Your task to perform on an android device: Show me the alarms in the clock app Image 0: 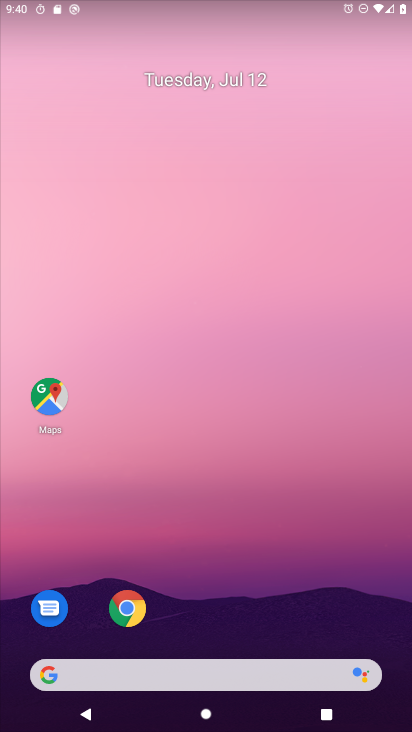
Step 0: drag from (209, 625) to (252, 4)
Your task to perform on an android device: Show me the alarms in the clock app Image 1: 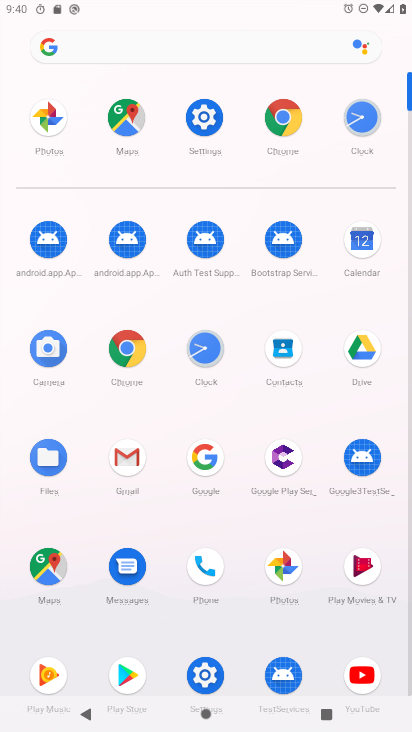
Step 1: drag from (189, 623) to (223, 123)
Your task to perform on an android device: Show me the alarms in the clock app Image 2: 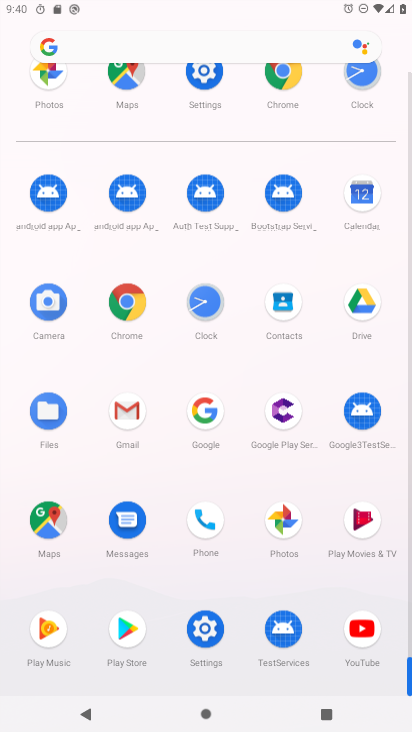
Step 2: click (363, 129)
Your task to perform on an android device: Show me the alarms in the clock app Image 3: 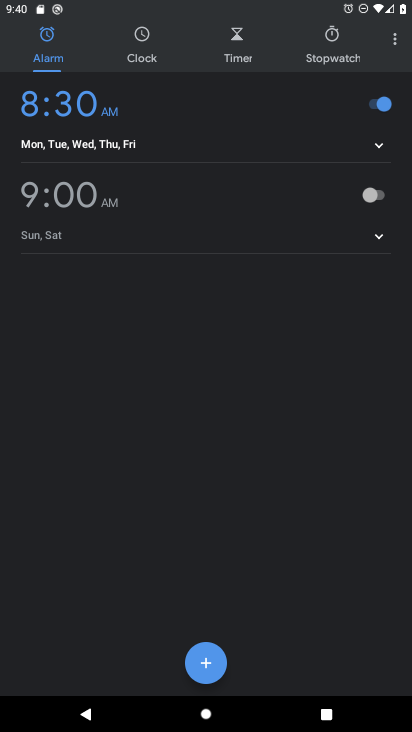
Step 3: task complete